Your task to perform on an android device: uninstall "Truecaller" Image 0: 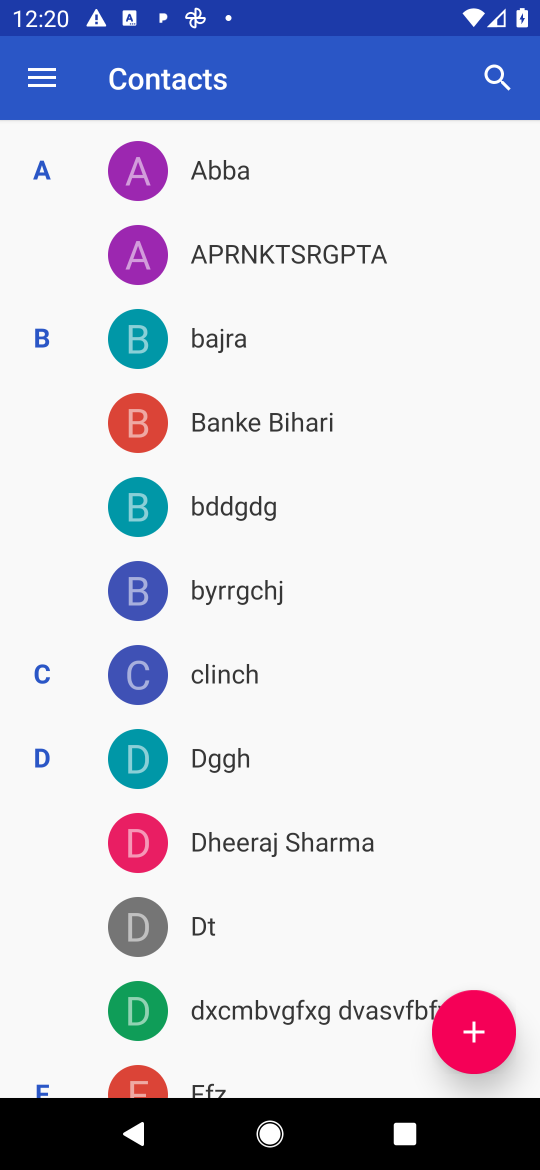
Step 0: press home button
Your task to perform on an android device: uninstall "Truecaller" Image 1: 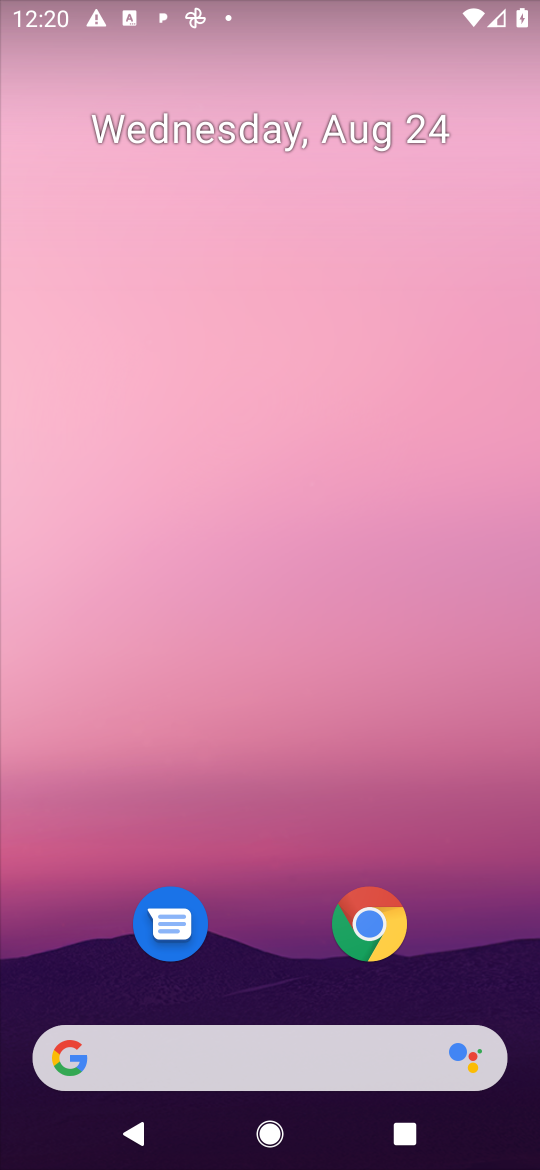
Step 1: drag from (469, 927) to (495, 21)
Your task to perform on an android device: uninstall "Truecaller" Image 2: 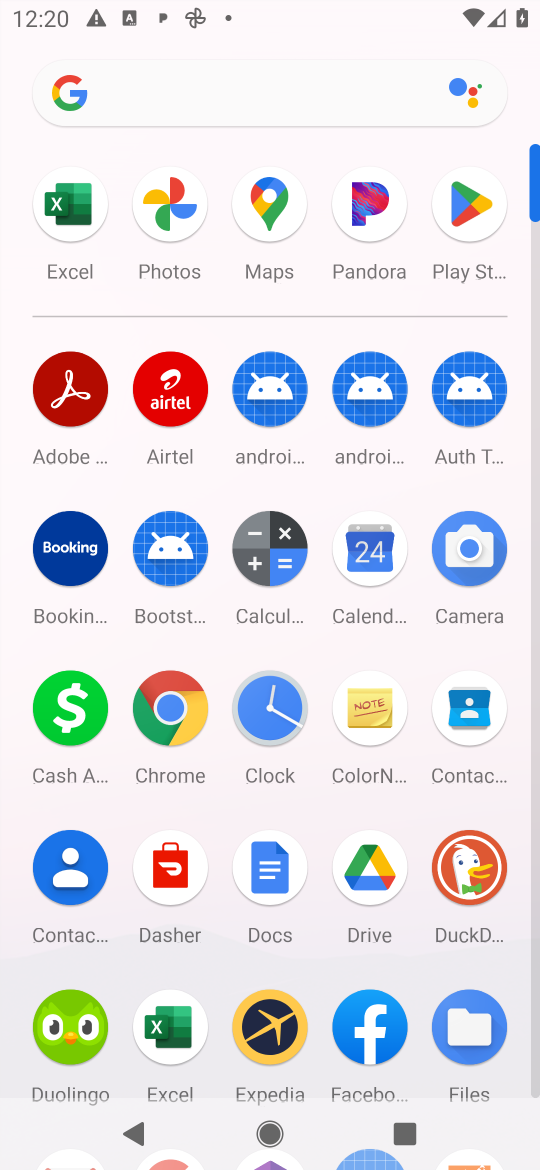
Step 2: click (465, 205)
Your task to perform on an android device: uninstall "Truecaller" Image 3: 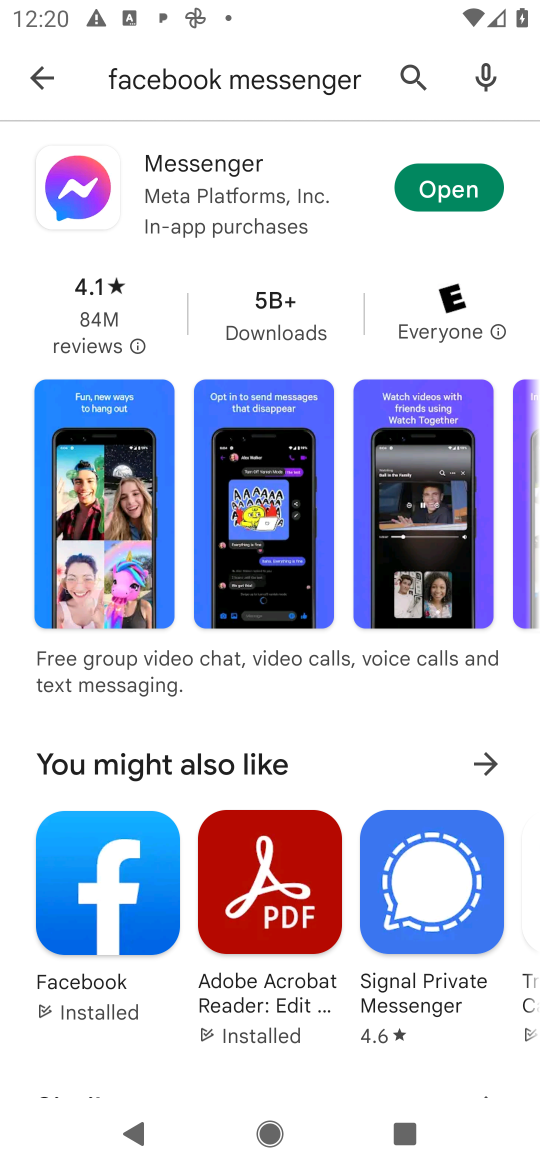
Step 3: press back button
Your task to perform on an android device: uninstall "Truecaller" Image 4: 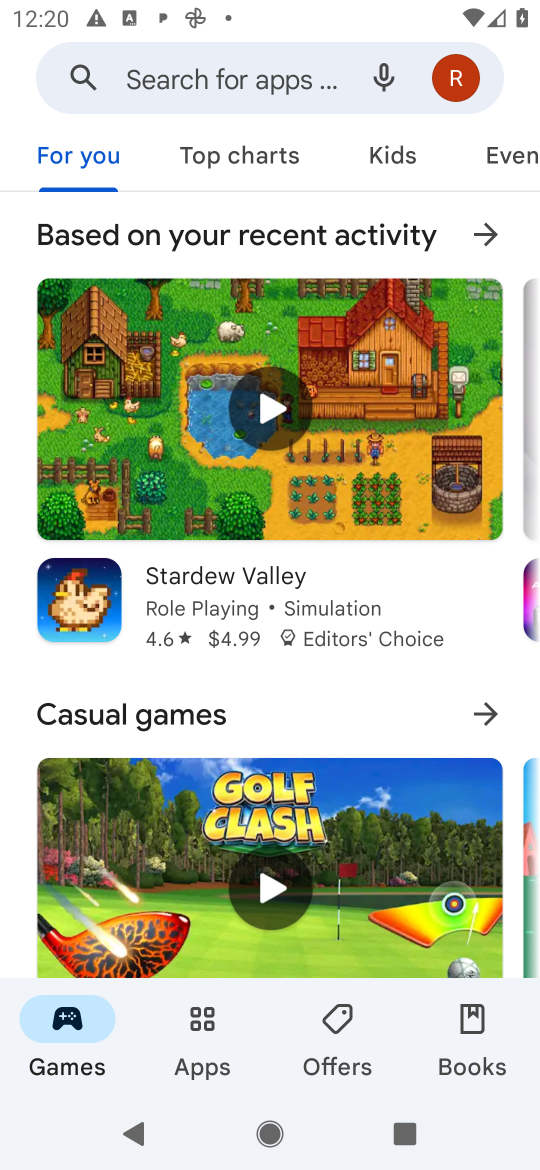
Step 4: click (283, 85)
Your task to perform on an android device: uninstall "Truecaller" Image 5: 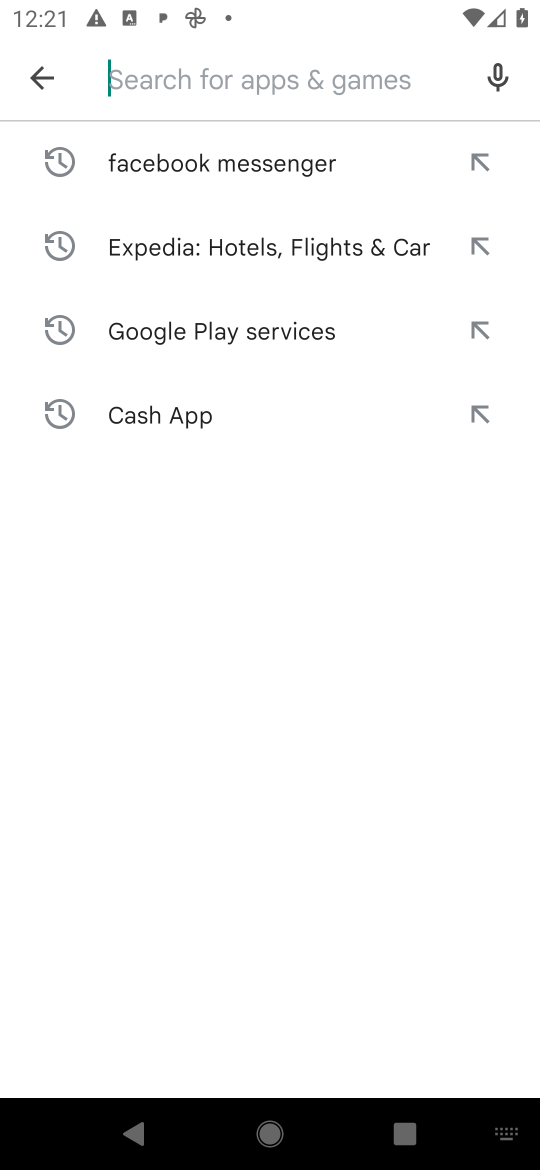
Step 5: type "truecaller"
Your task to perform on an android device: uninstall "Truecaller" Image 6: 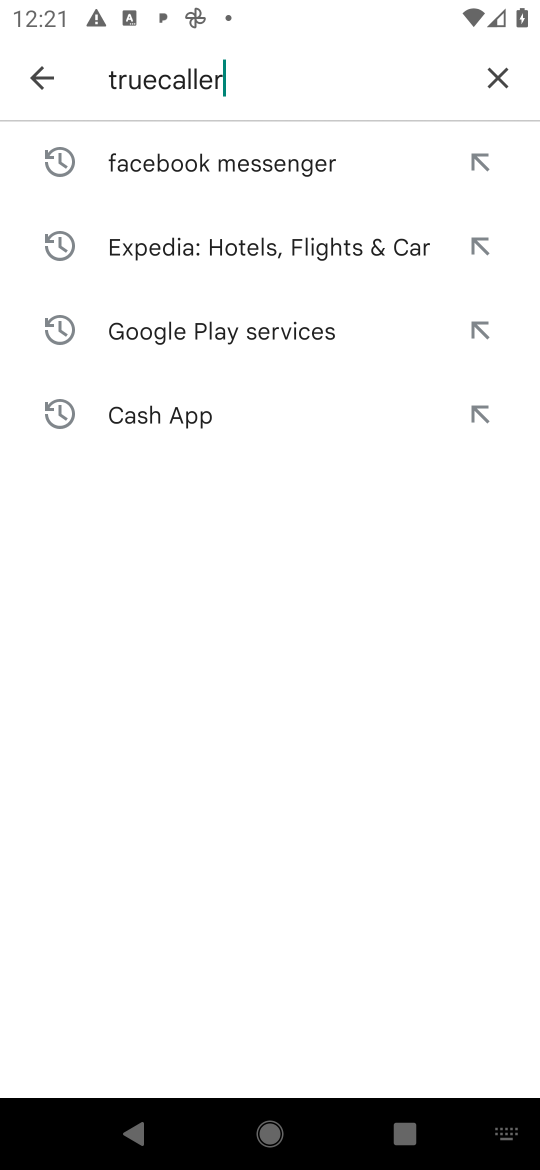
Step 6: press enter
Your task to perform on an android device: uninstall "Truecaller" Image 7: 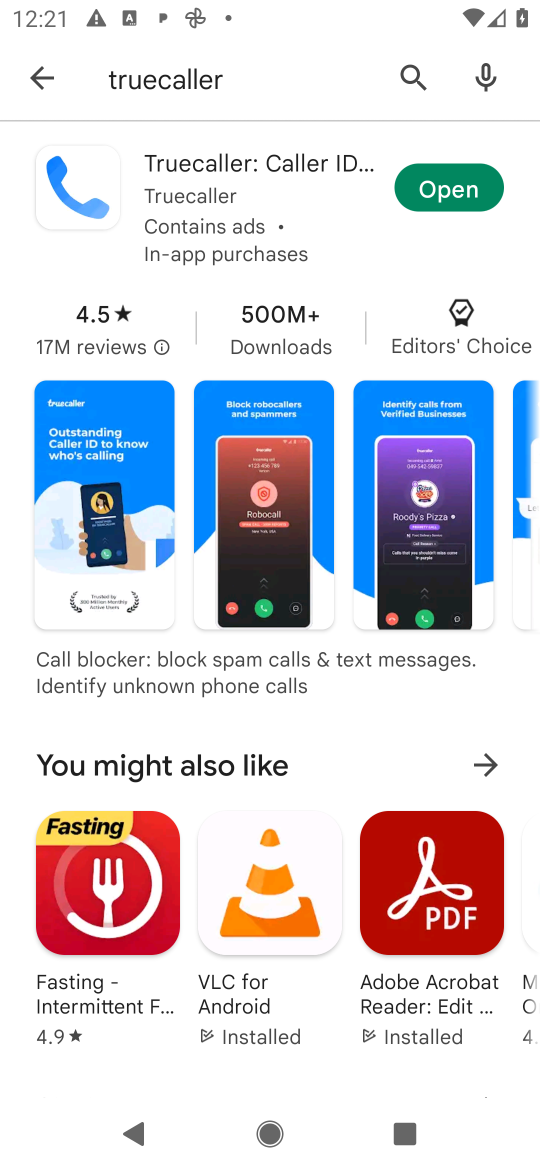
Step 7: press home button
Your task to perform on an android device: uninstall "Truecaller" Image 8: 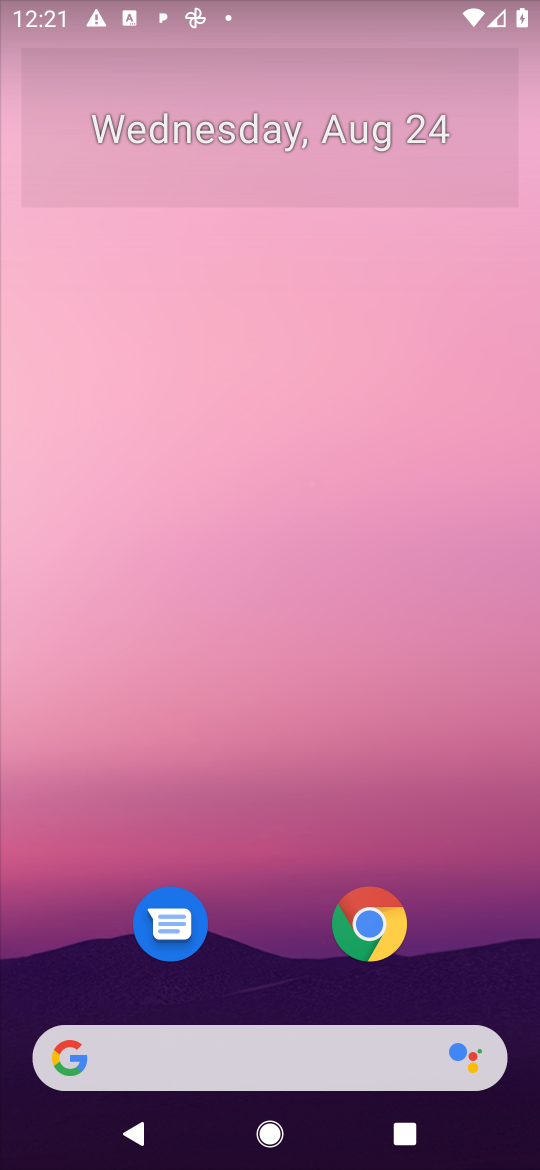
Step 8: drag from (480, 958) to (488, 154)
Your task to perform on an android device: uninstall "Truecaller" Image 9: 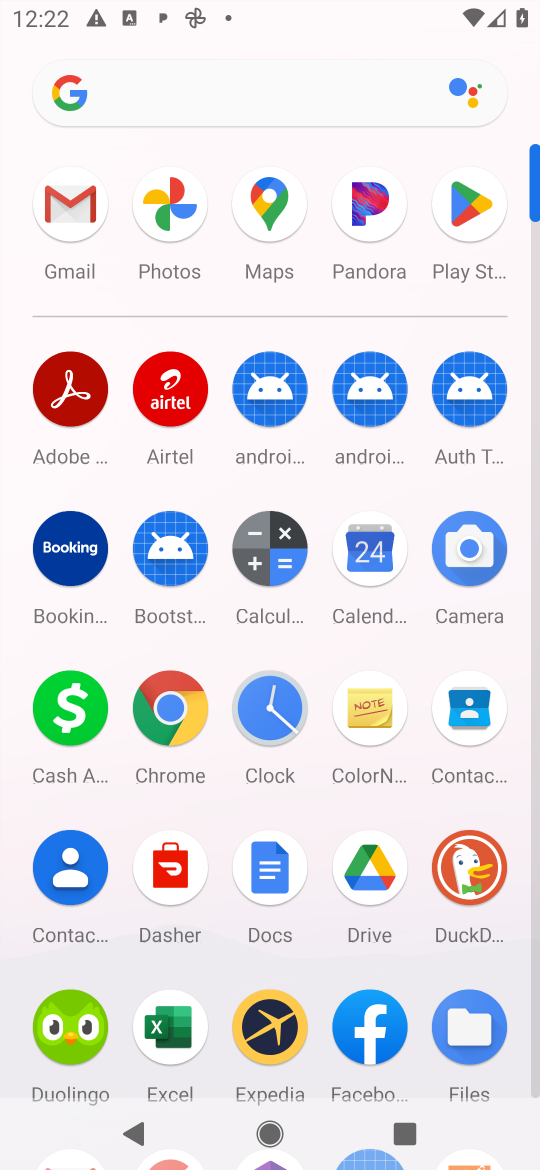
Step 9: click (476, 212)
Your task to perform on an android device: uninstall "Truecaller" Image 10: 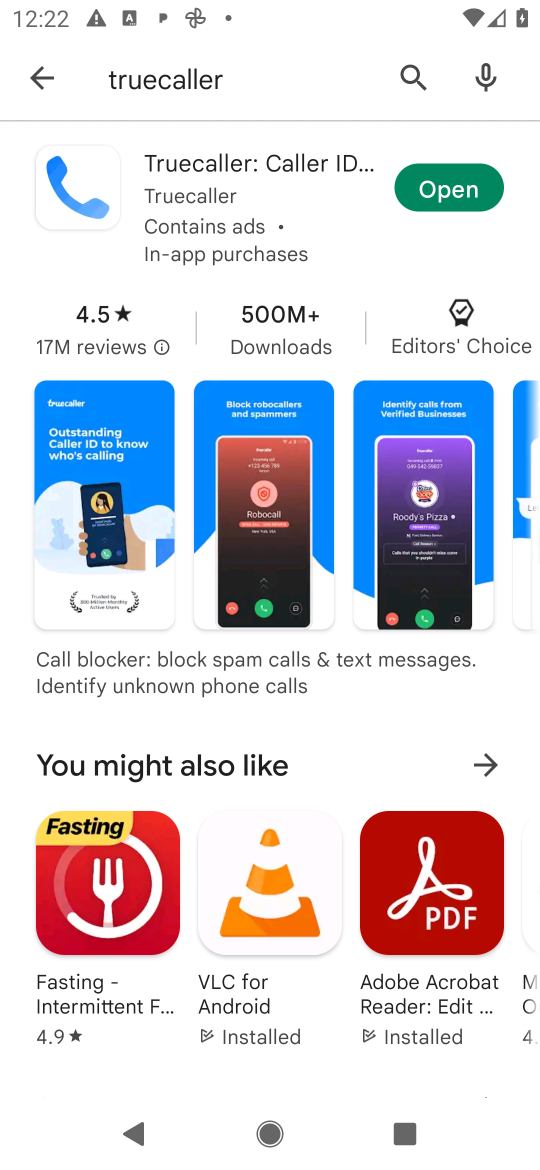
Step 10: press back button
Your task to perform on an android device: uninstall "Truecaller" Image 11: 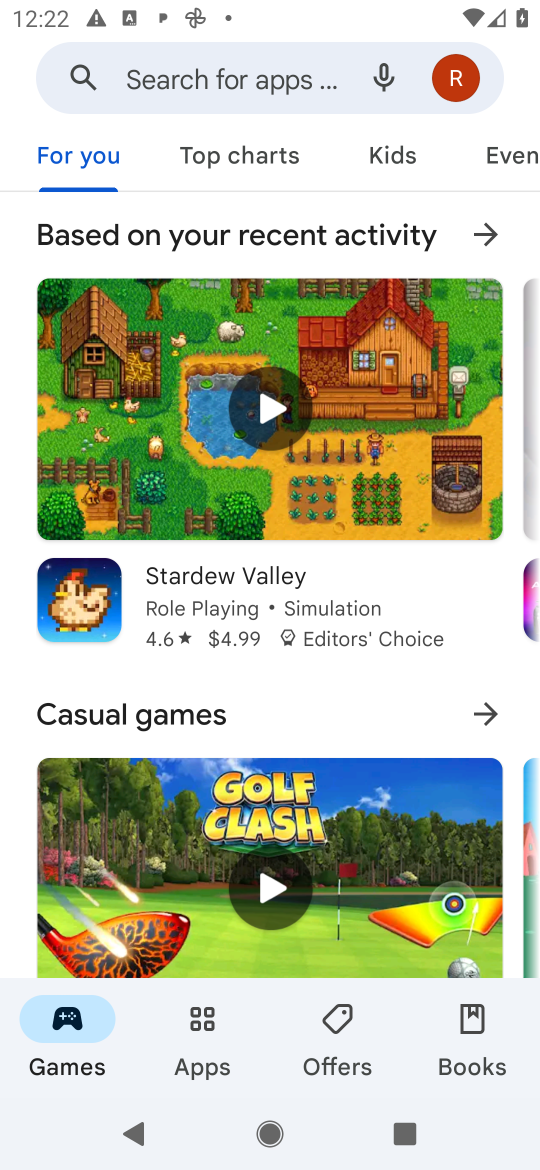
Step 11: click (251, 72)
Your task to perform on an android device: uninstall "Truecaller" Image 12: 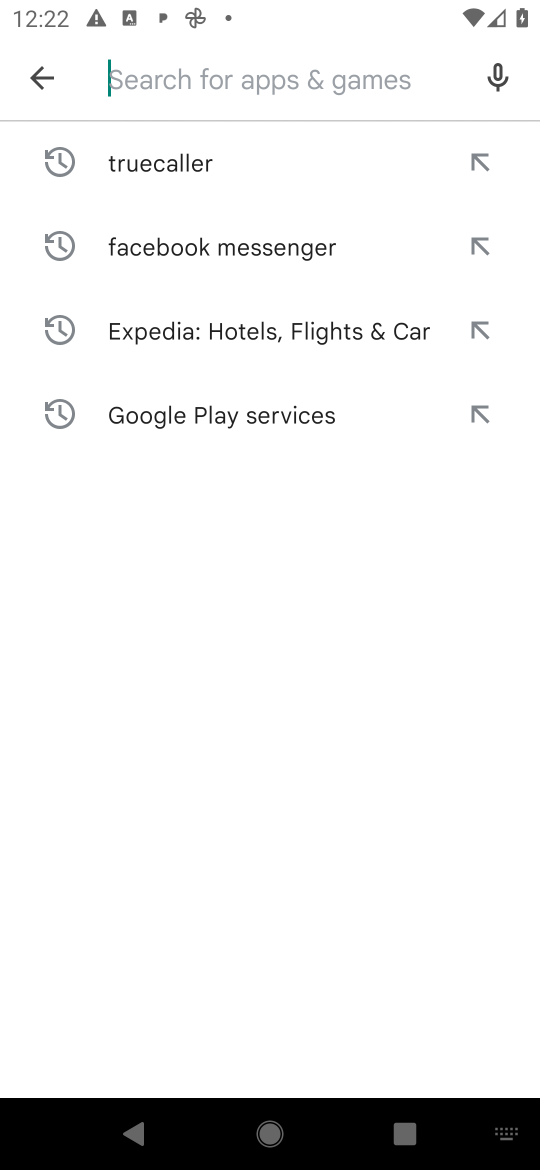
Step 12: type "Truecaller"
Your task to perform on an android device: uninstall "Truecaller" Image 13: 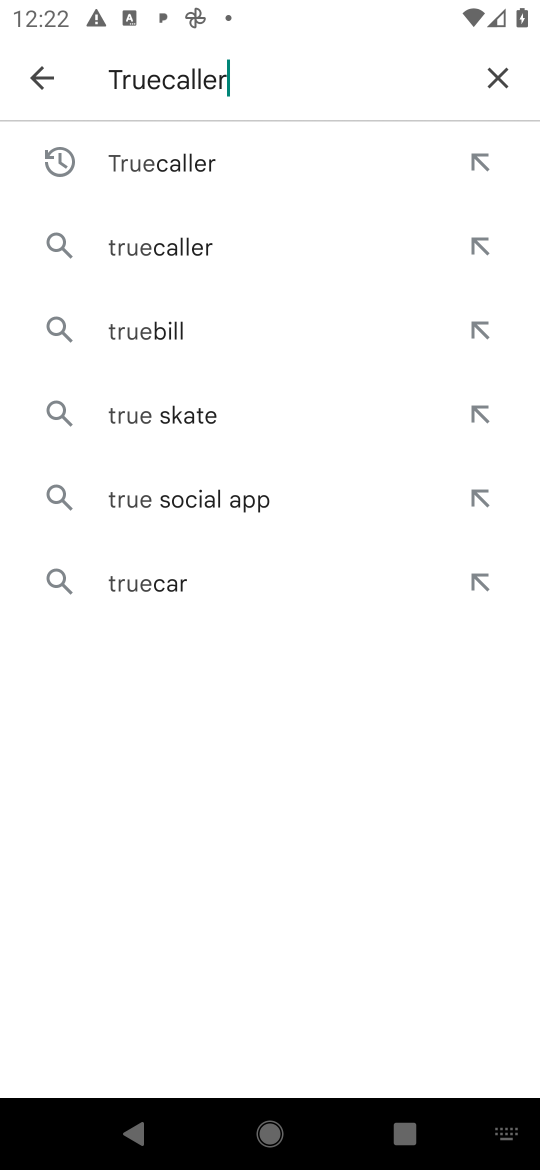
Step 13: press enter
Your task to perform on an android device: uninstall "Truecaller" Image 14: 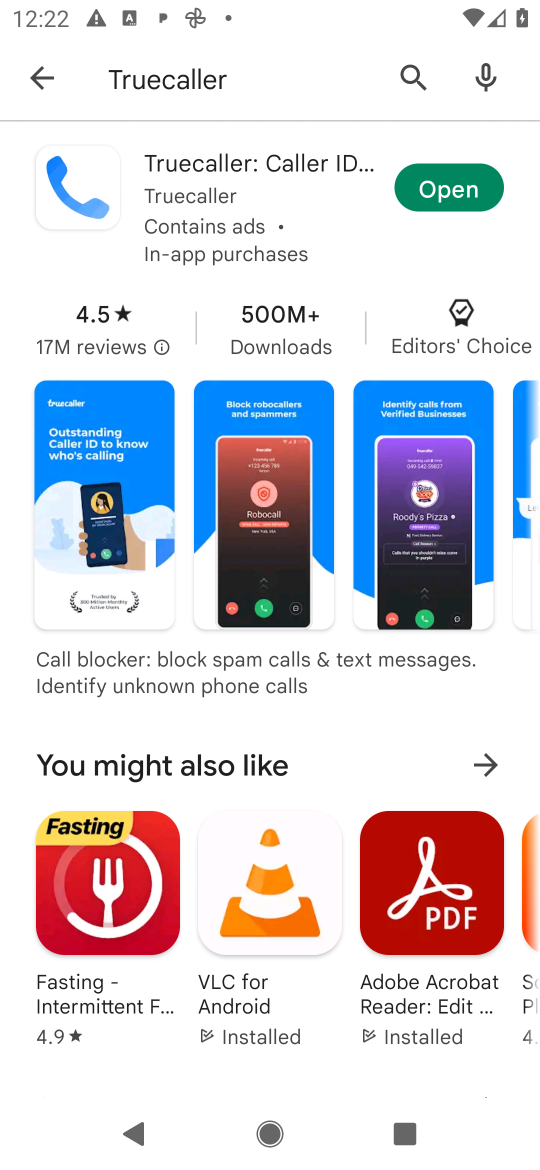
Step 14: task complete